Your task to perform on an android device: Search for the best-rated coffee table on Crate & Barrel Image 0: 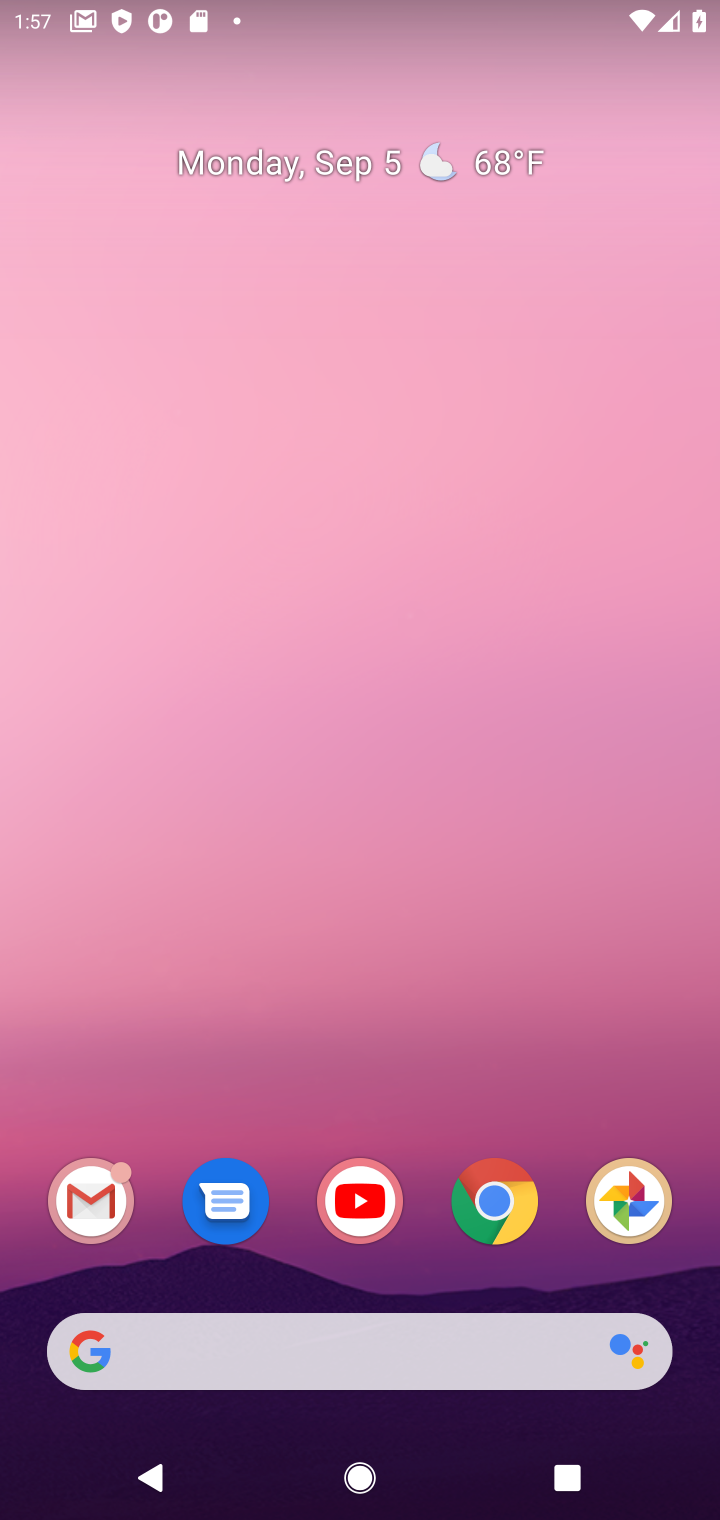
Step 0: press home button
Your task to perform on an android device: Search for the best-rated coffee table on Crate & Barrel Image 1: 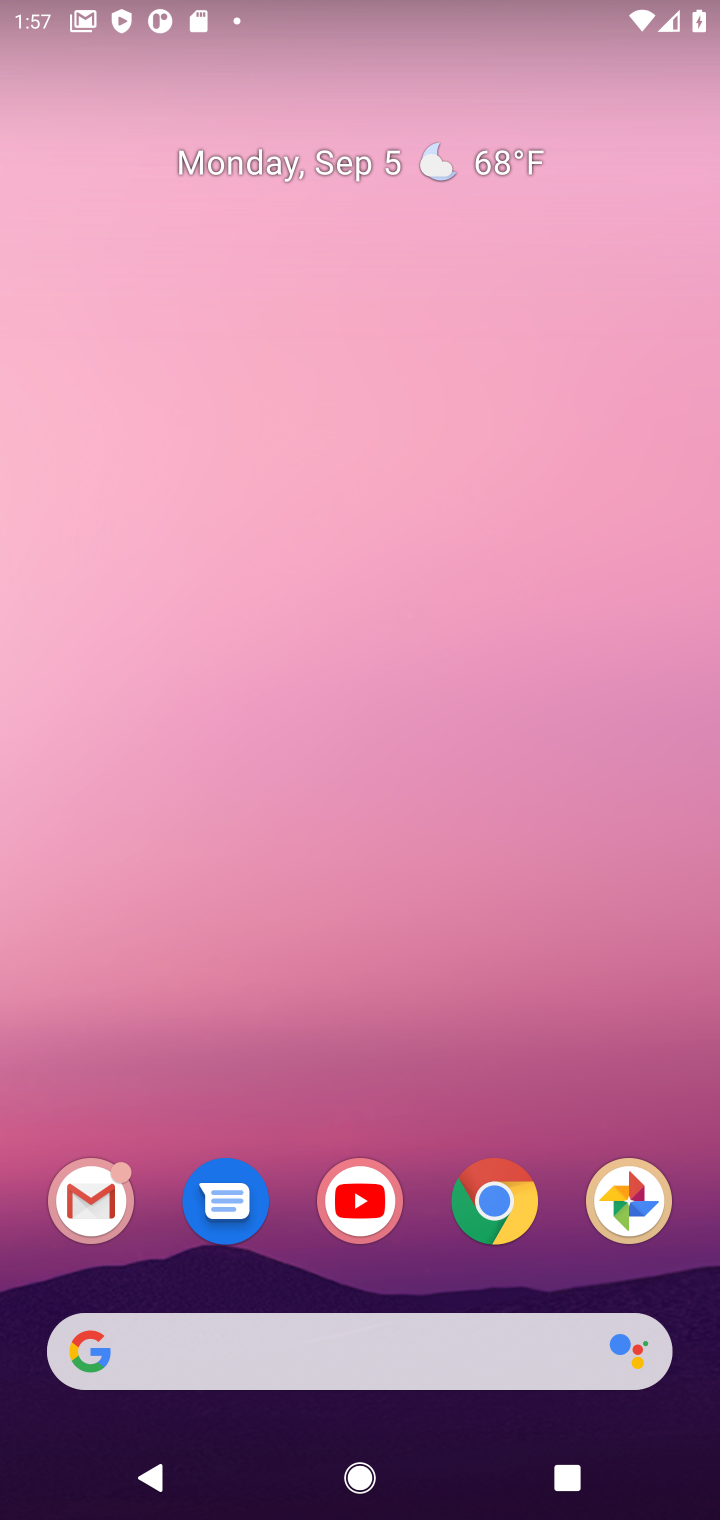
Step 1: click (493, 1211)
Your task to perform on an android device: Search for the best-rated coffee table on Crate & Barrel Image 2: 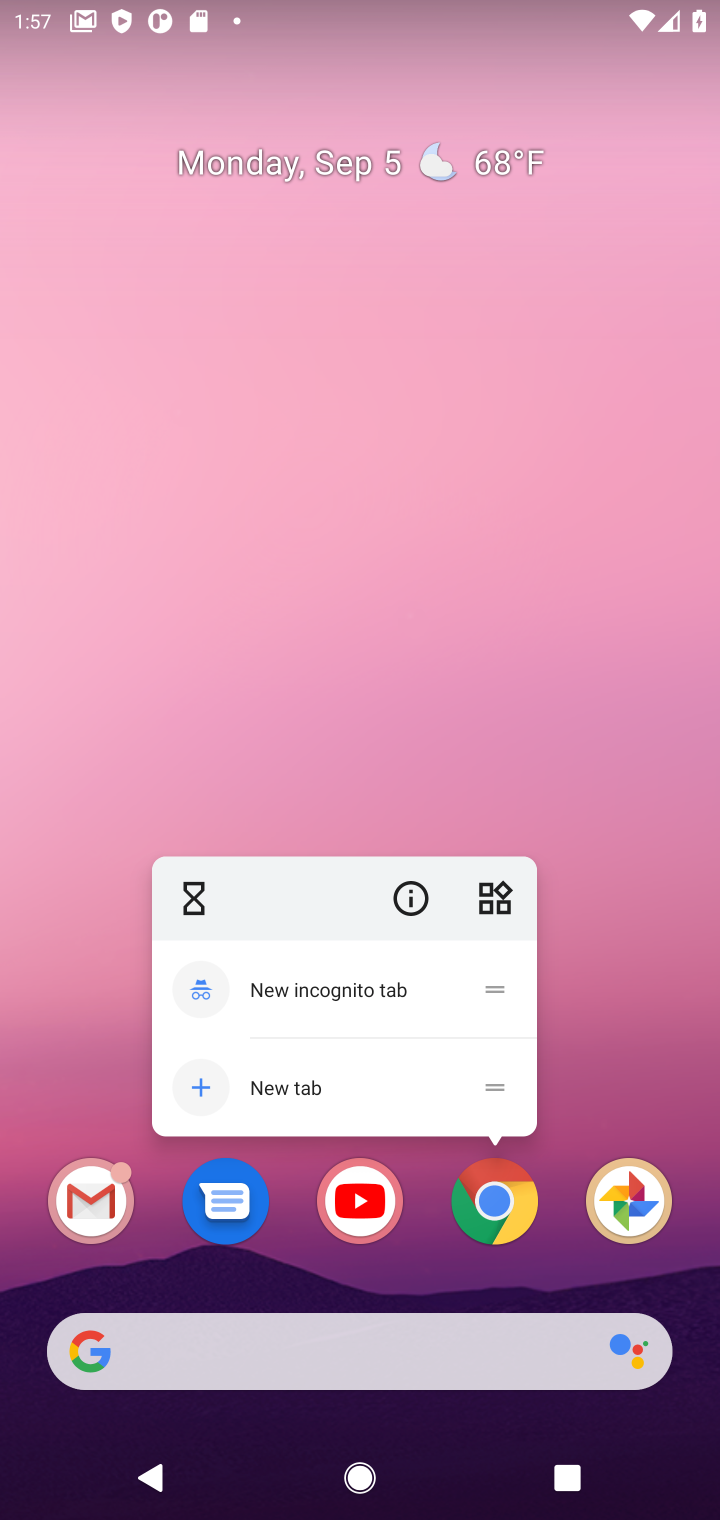
Step 2: click (493, 1211)
Your task to perform on an android device: Search for the best-rated coffee table on Crate & Barrel Image 3: 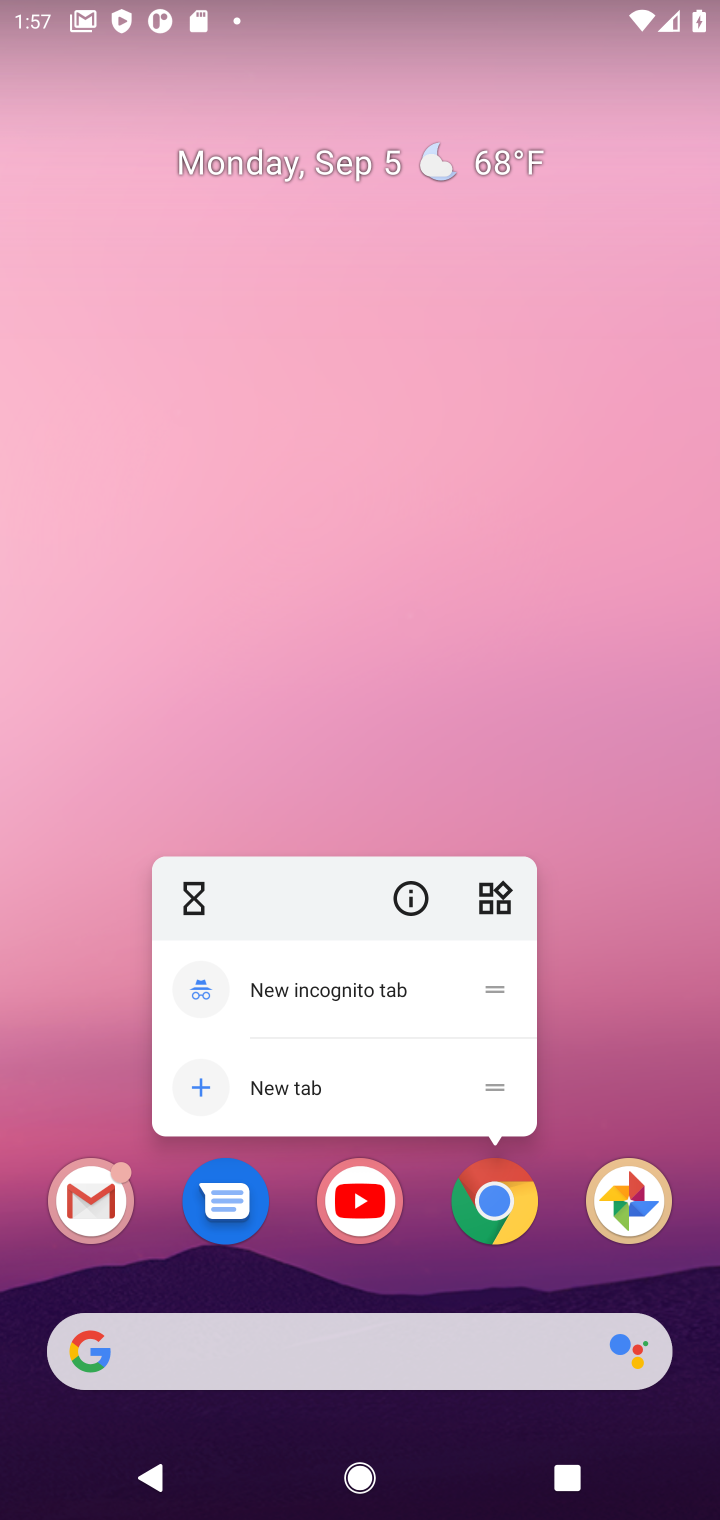
Step 3: click (493, 1212)
Your task to perform on an android device: Search for the best-rated coffee table on Crate & Barrel Image 4: 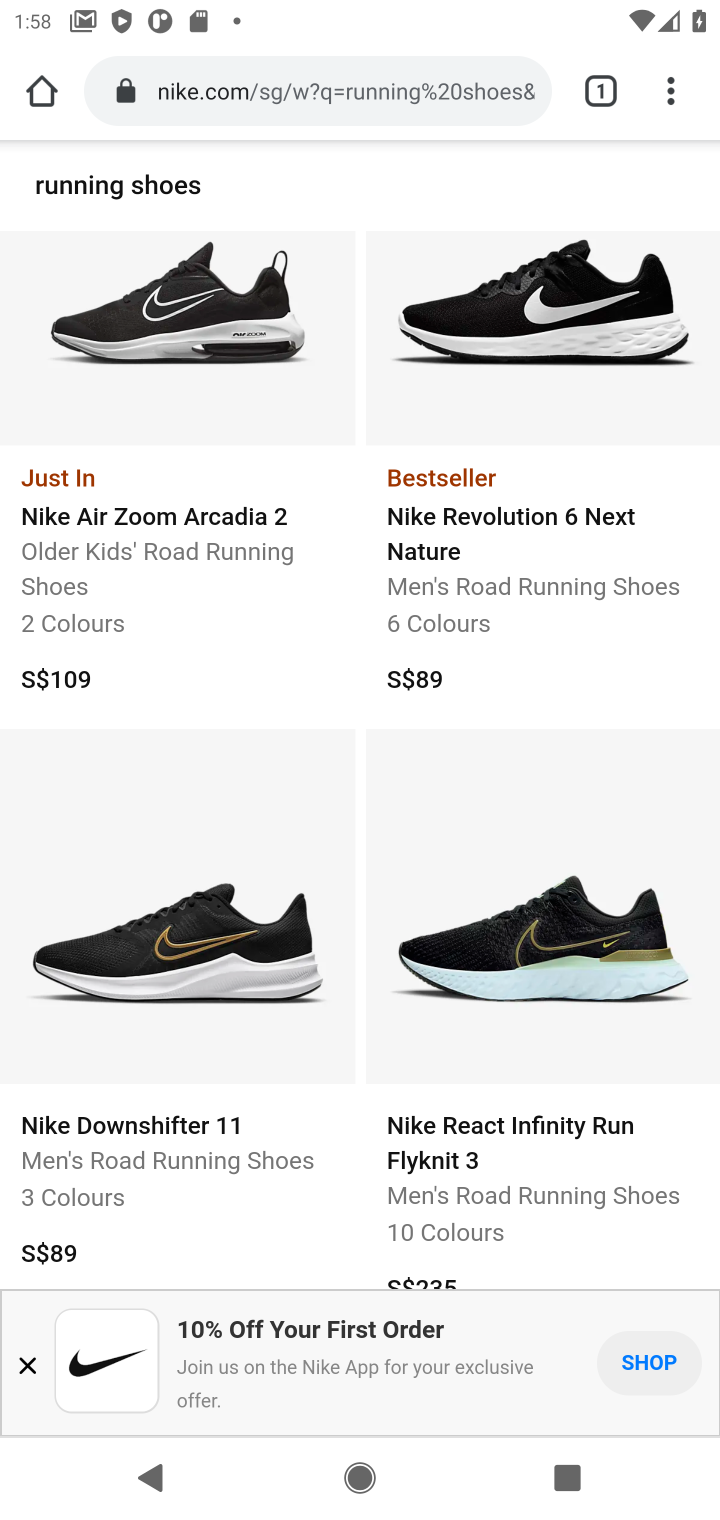
Step 4: click (358, 84)
Your task to perform on an android device: Search for the best-rated coffee table on Crate & Barrel Image 5: 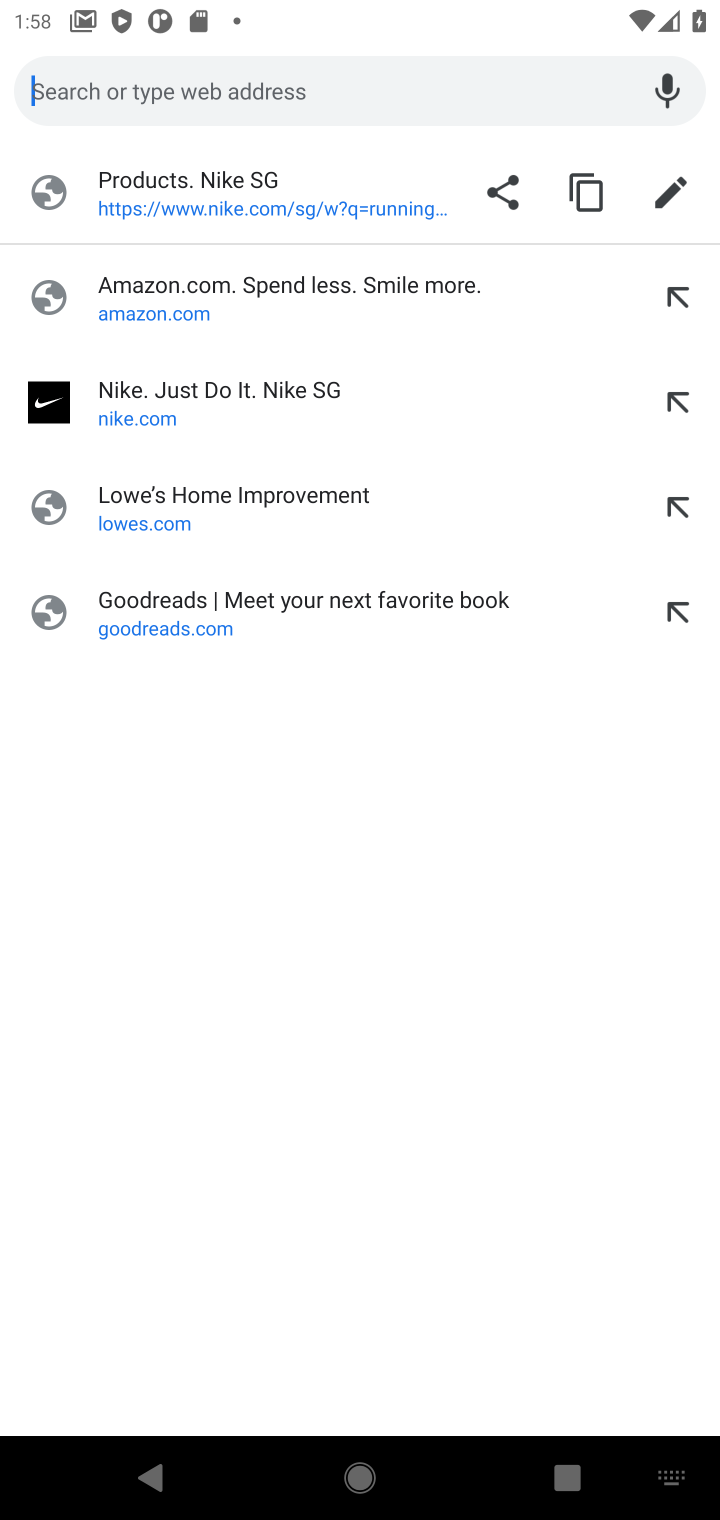
Step 5: press enter
Your task to perform on an android device: Search for the best-rated coffee table on Crate & Barrel Image 6: 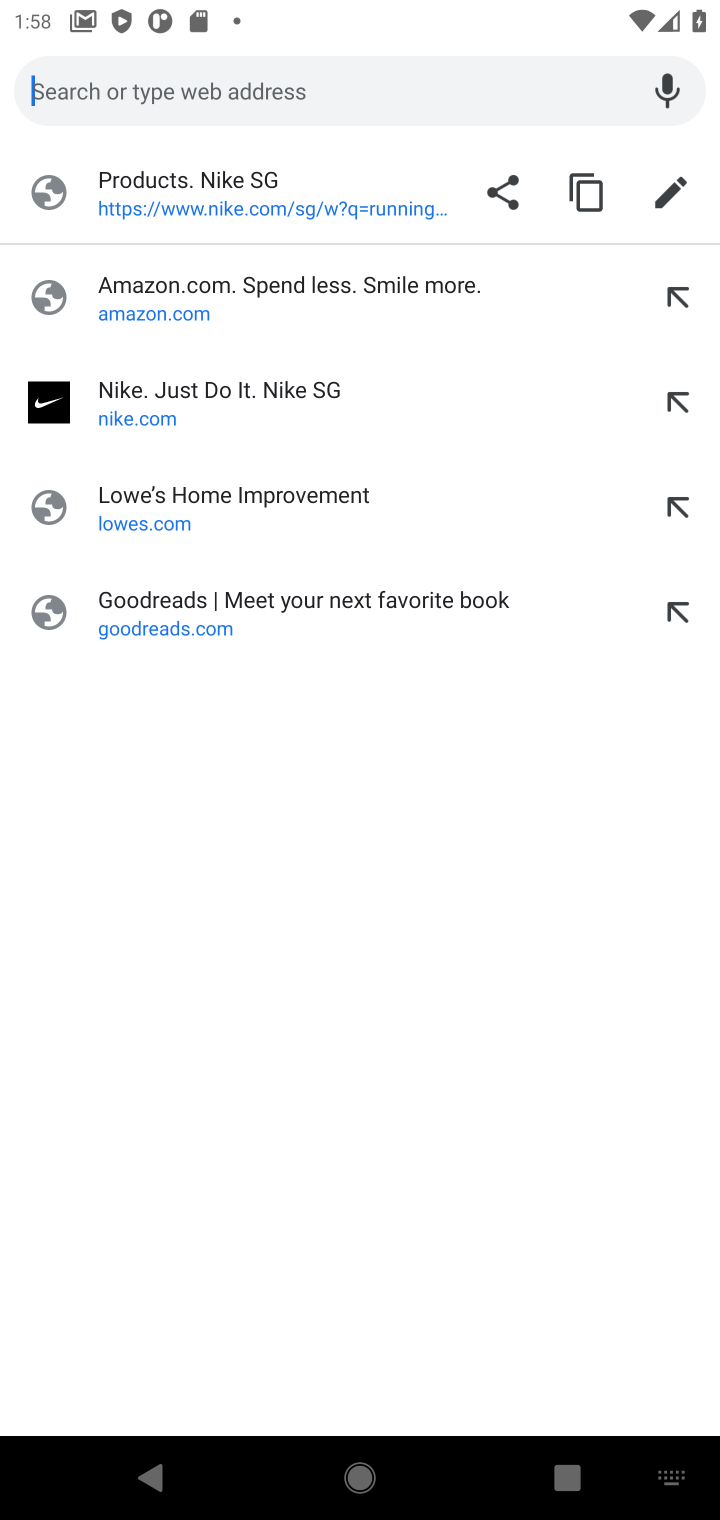
Step 6: type "Crate & Barrel"
Your task to perform on an android device: Search for the best-rated coffee table on Crate & Barrel Image 7: 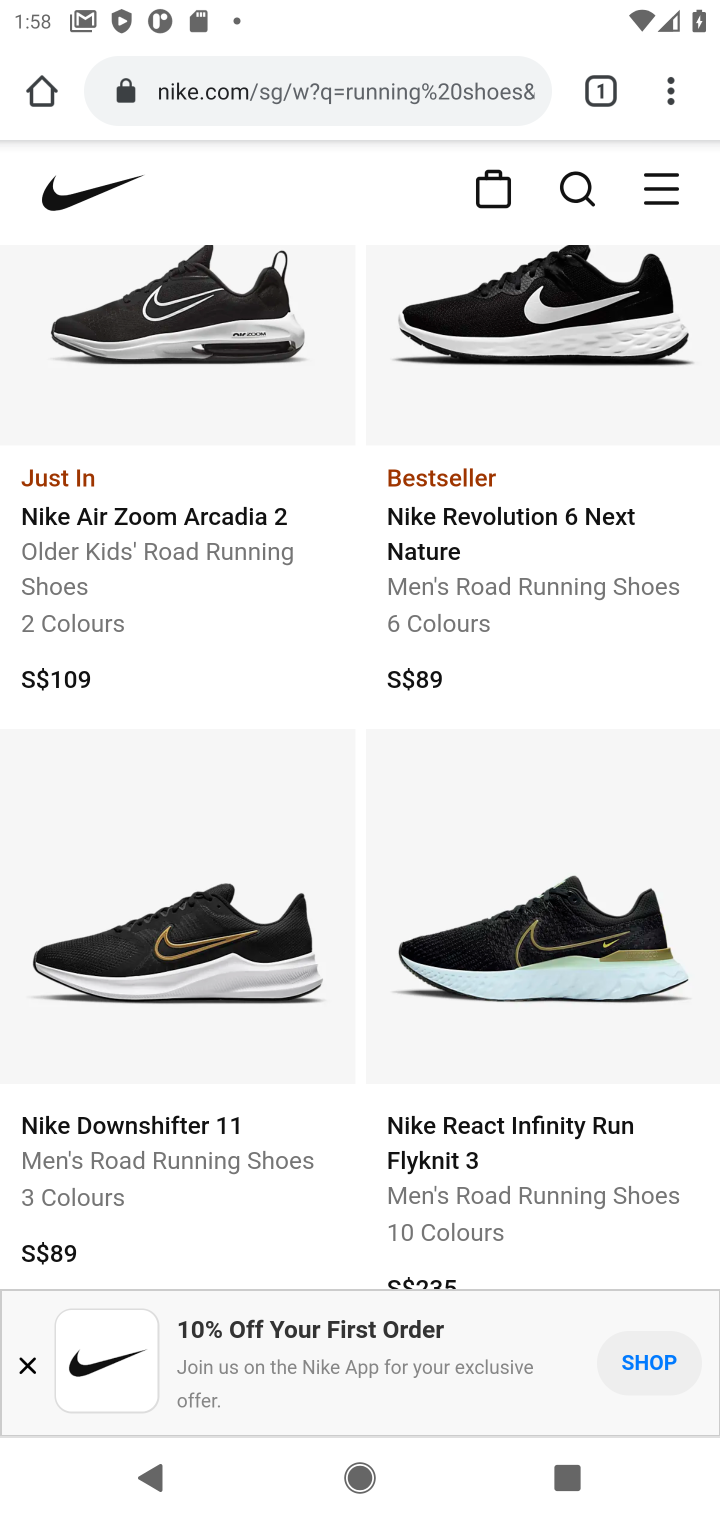
Step 7: click (375, 73)
Your task to perform on an android device: Search for the best-rated coffee table on Crate & Barrel Image 8: 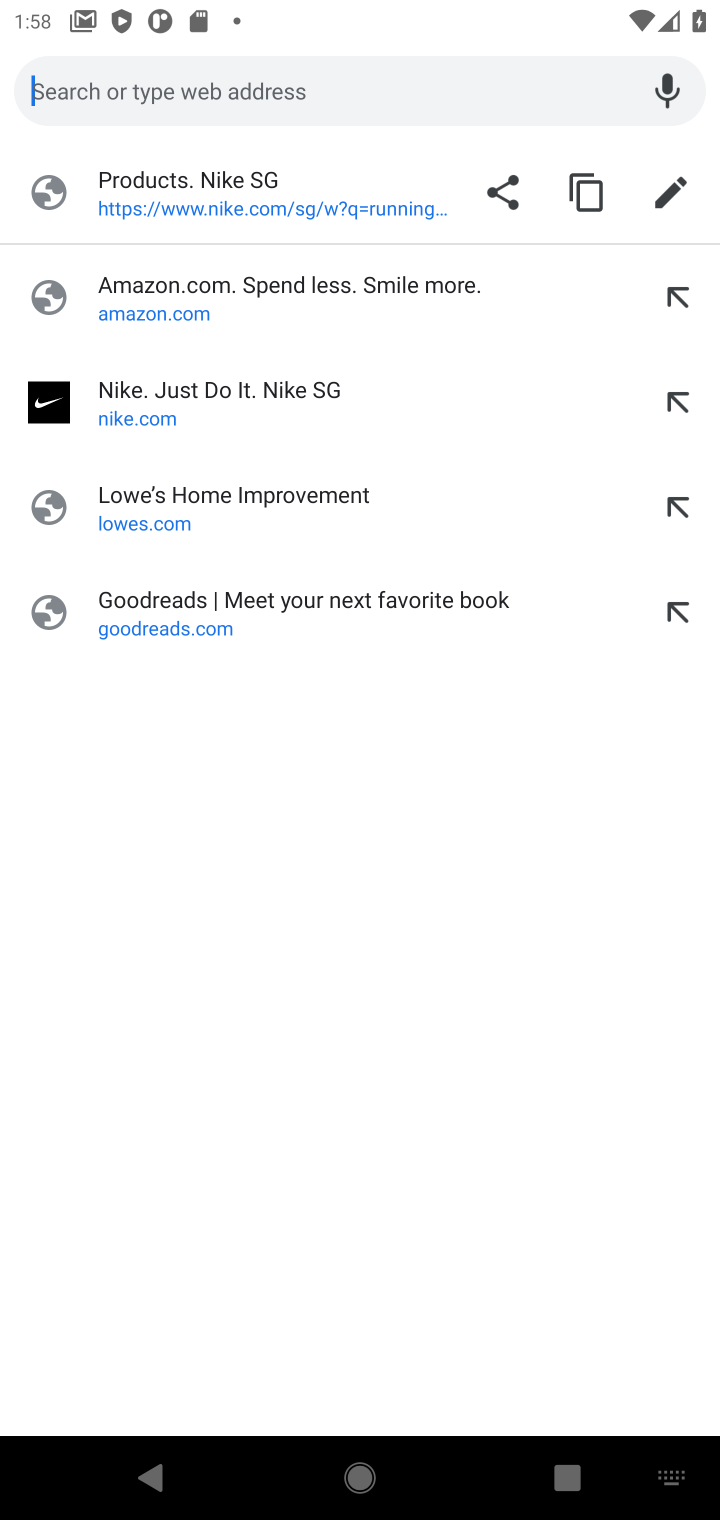
Step 8: type "Crate & Barrel"
Your task to perform on an android device: Search for the best-rated coffee table on Crate & Barrel Image 9: 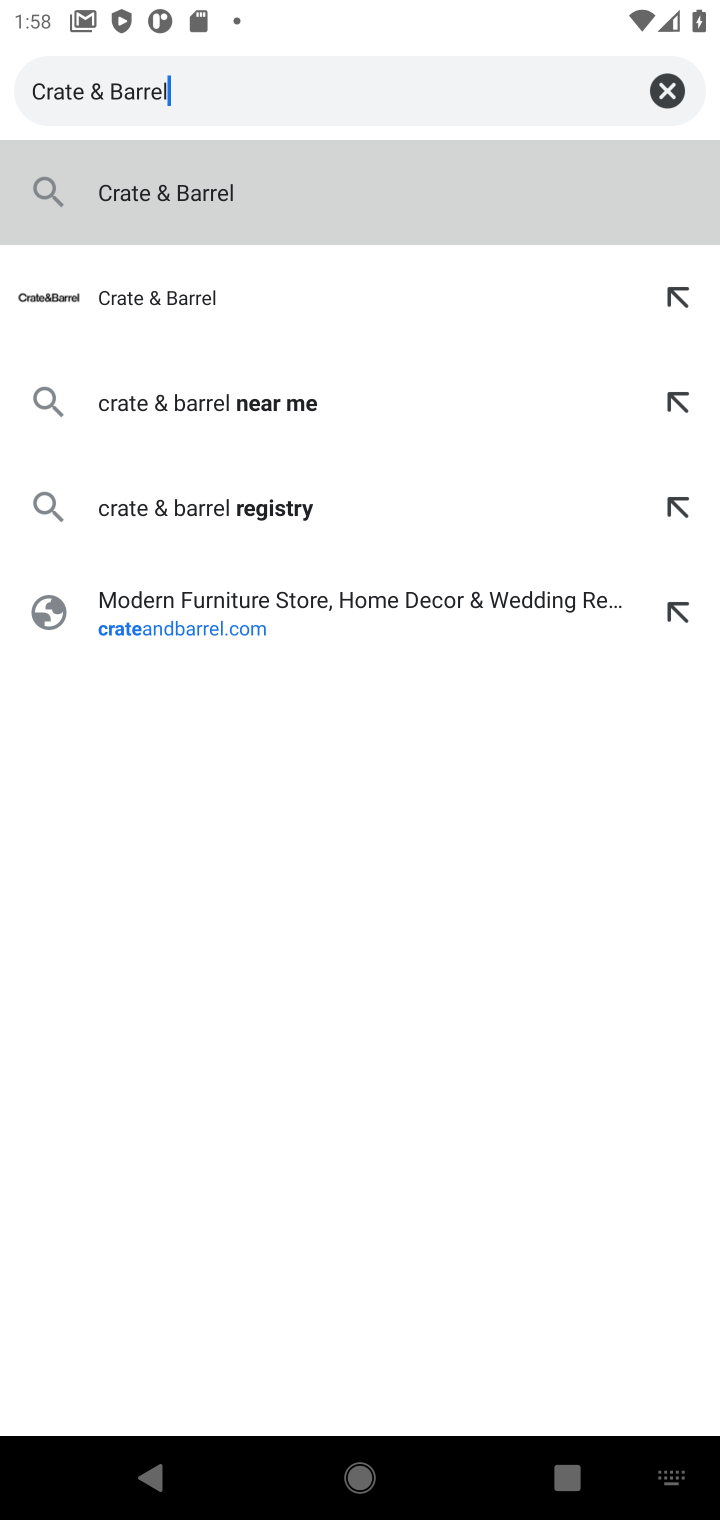
Step 9: press enter
Your task to perform on an android device: Search for the best-rated coffee table on Crate & Barrel Image 10: 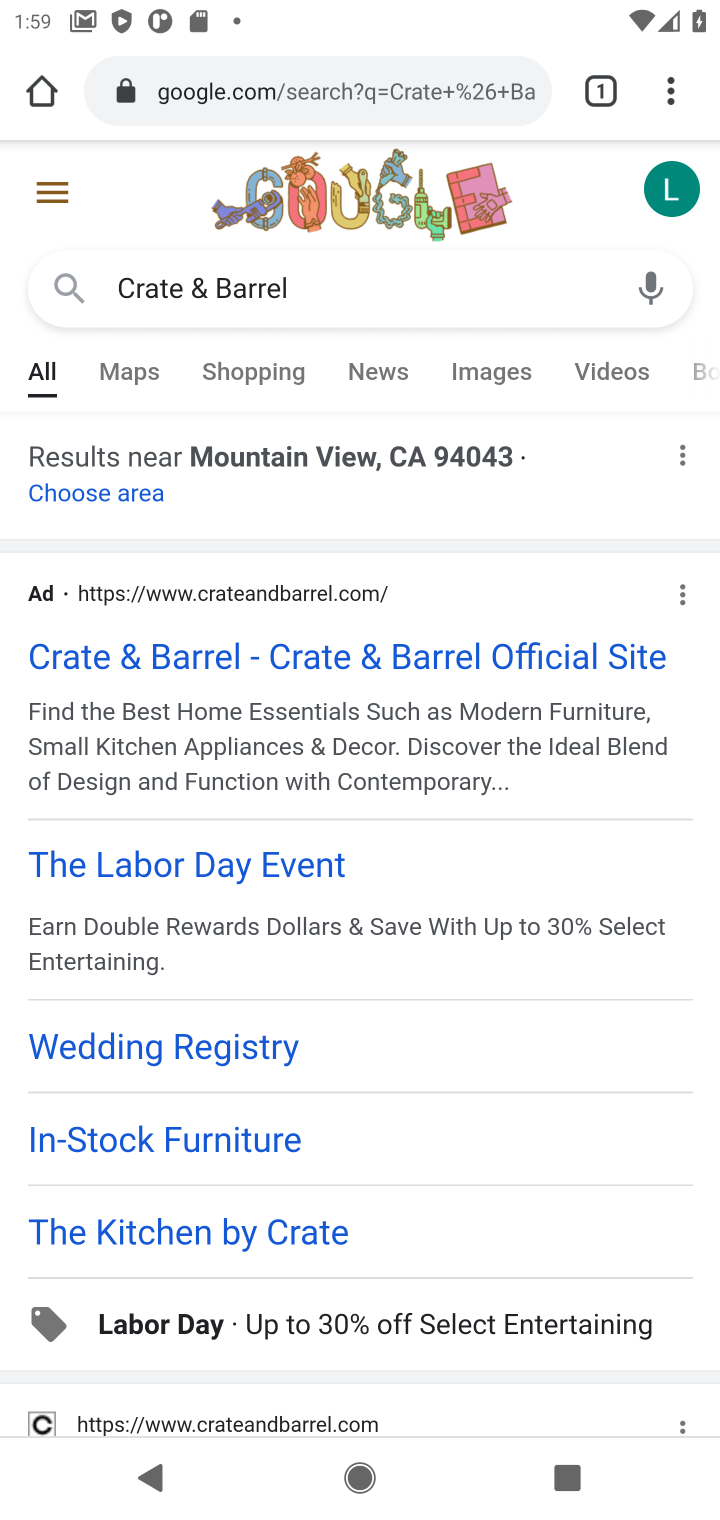
Step 10: drag from (502, 853) to (640, 529)
Your task to perform on an android device: Search for the best-rated coffee table on Crate & Barrel Image 11: 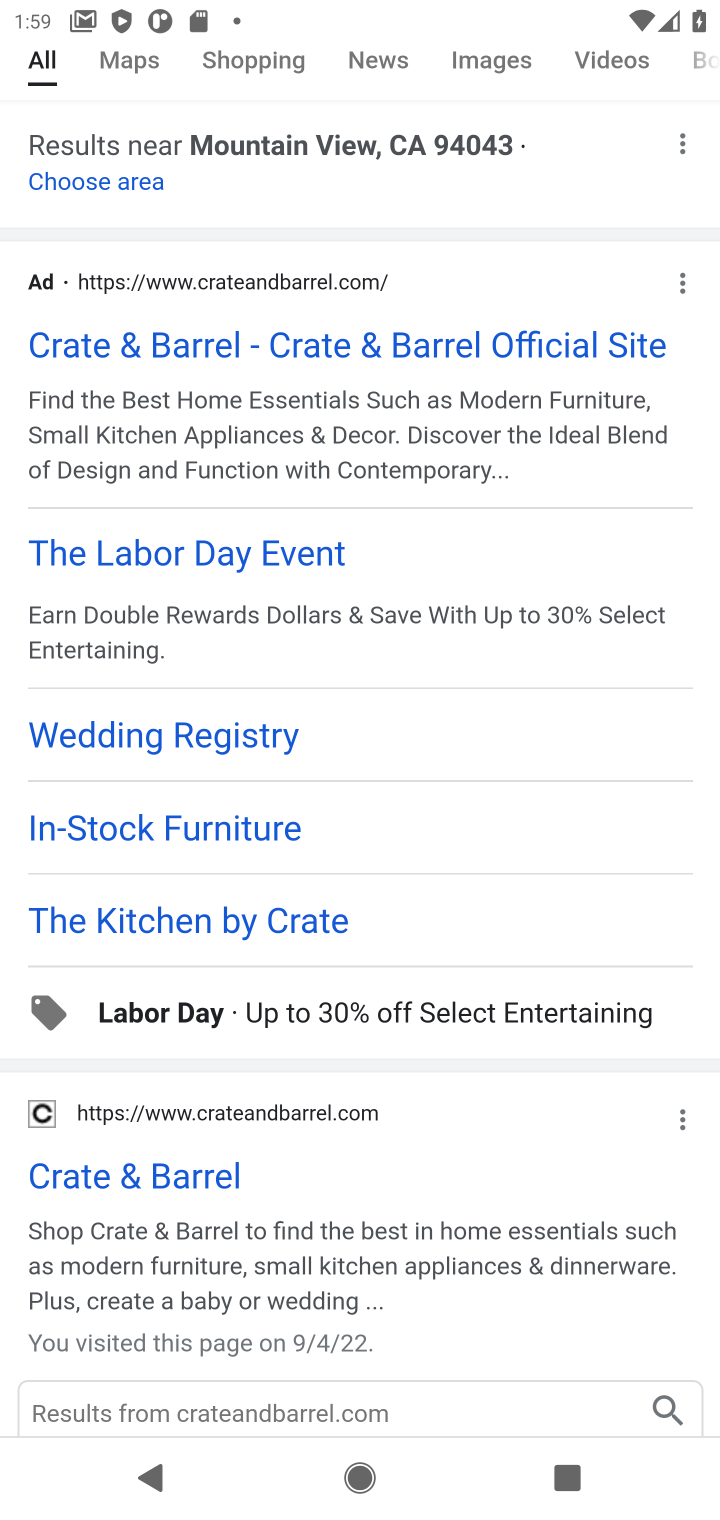
Step 11: click (191, 1166)
Your task to perform on an android device: Search for the best-rated coffee table on Crate & Barrel Image 12: 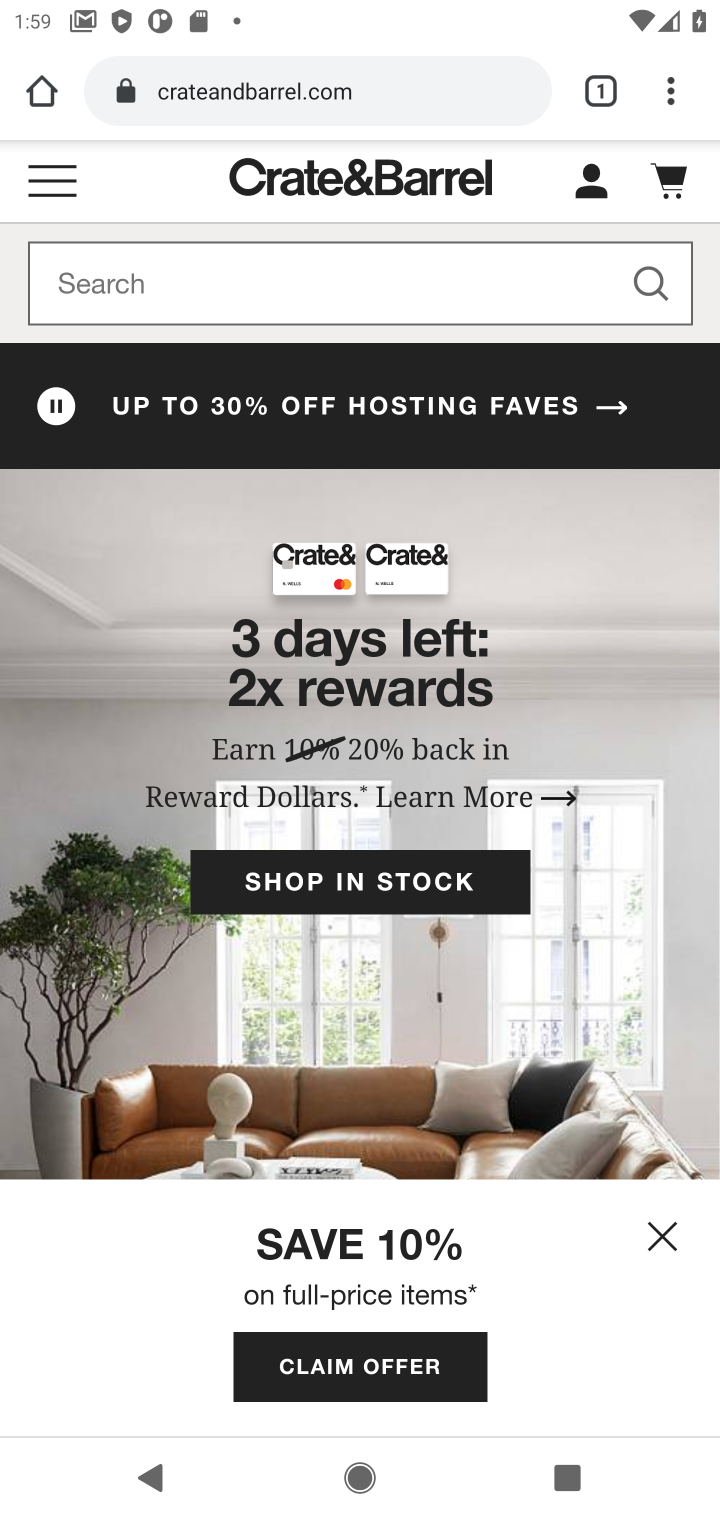
Step 12: click (411, 284)
Your task to perform on an android device: Search for the best-rated coffee table on Crate & Barrel Image 13: 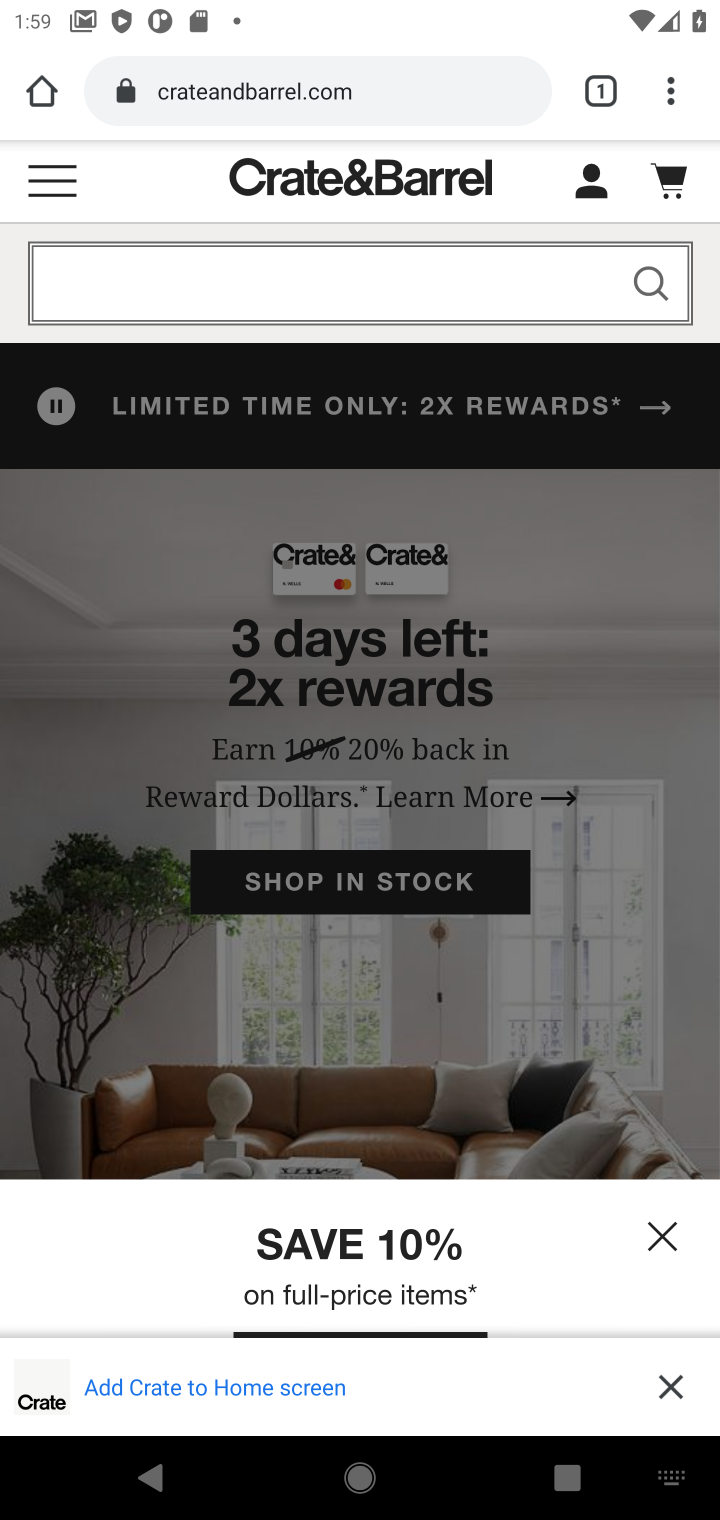
Step 13: type "rated coffee table"
Your task to perform on an android device: Search for the best-rated coffee table on Crate & Barrel Image 14: 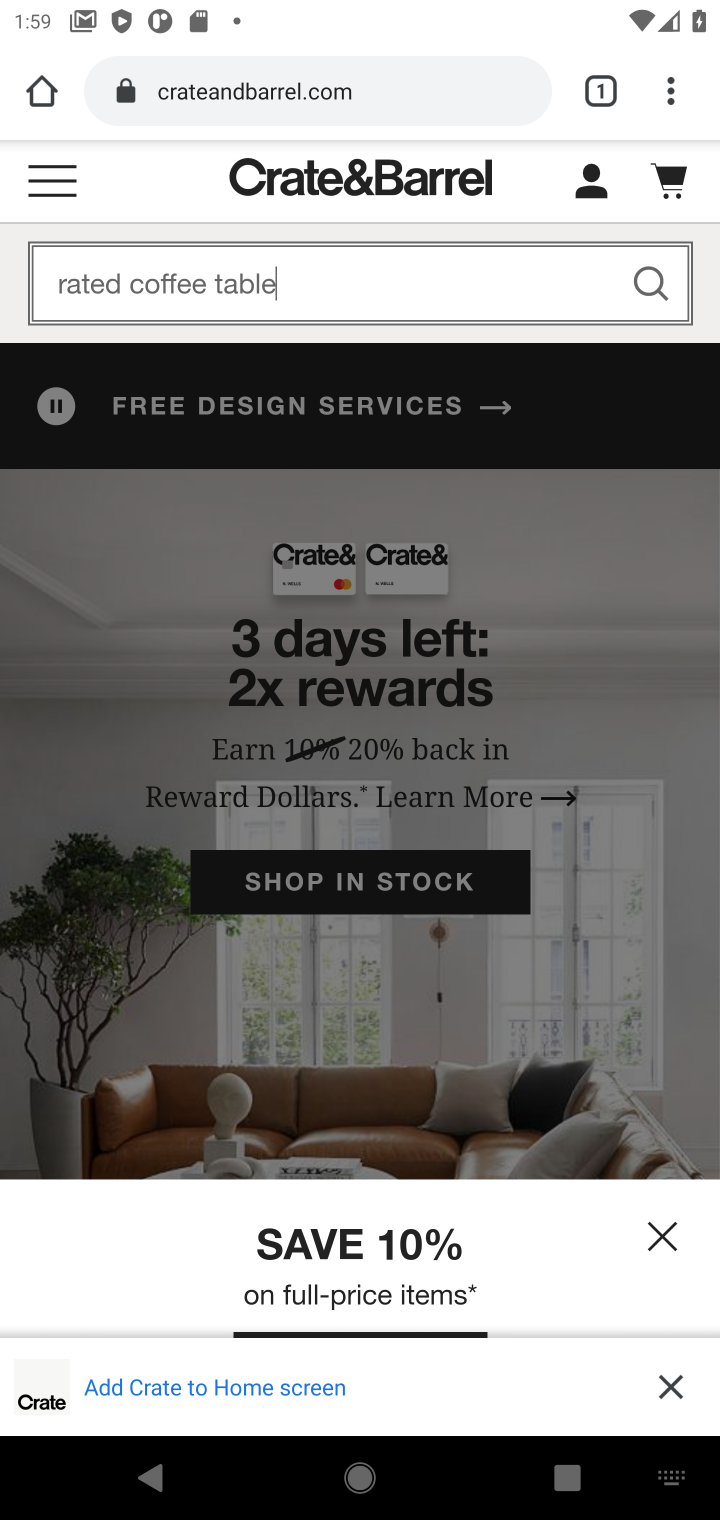
Step 14: press enter
Your task to perform on an android device: Search for the best-rated coffee table on Crate & Barrel Image 15: 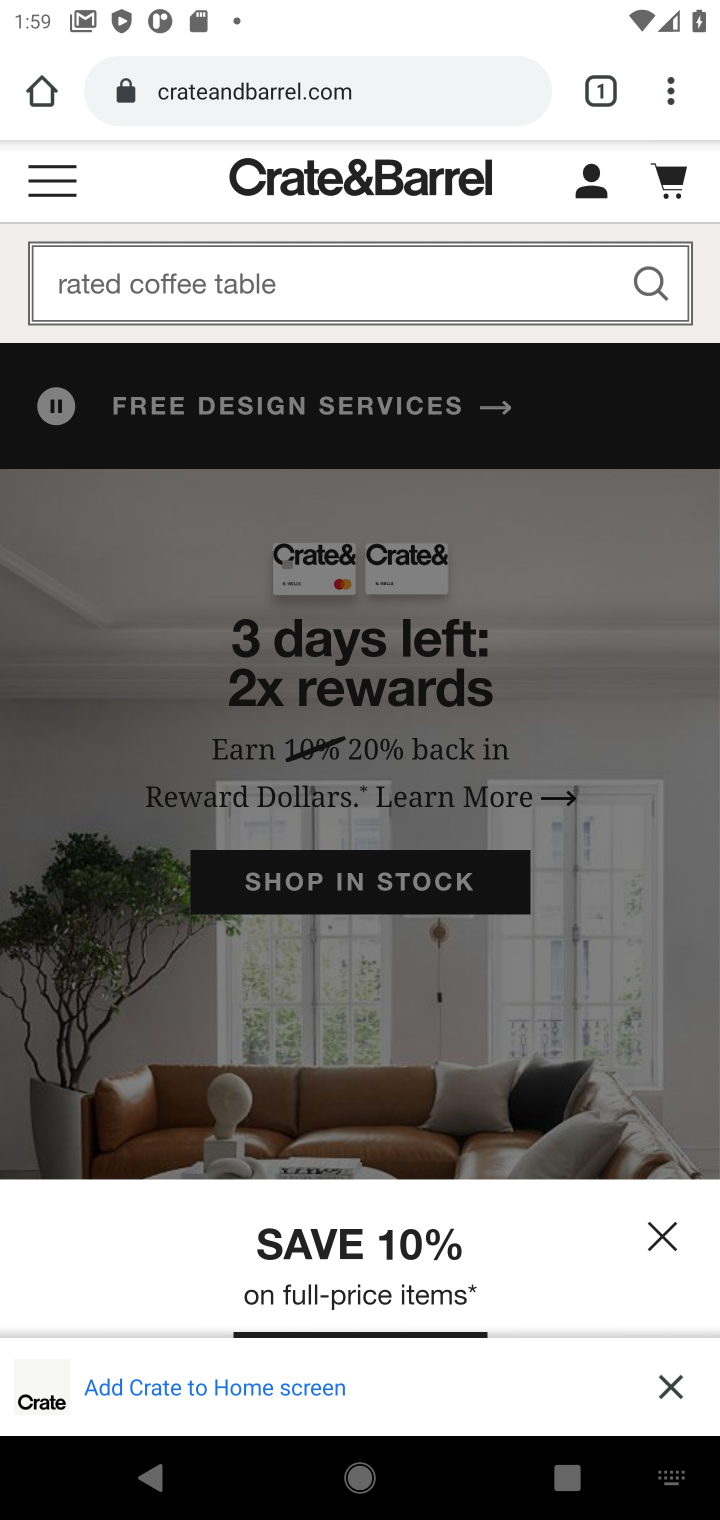
Step 15: click (645, 279)
Your task to perform on an android device: Search for the best-rated coffee table on Crate & Barrel Image 16: 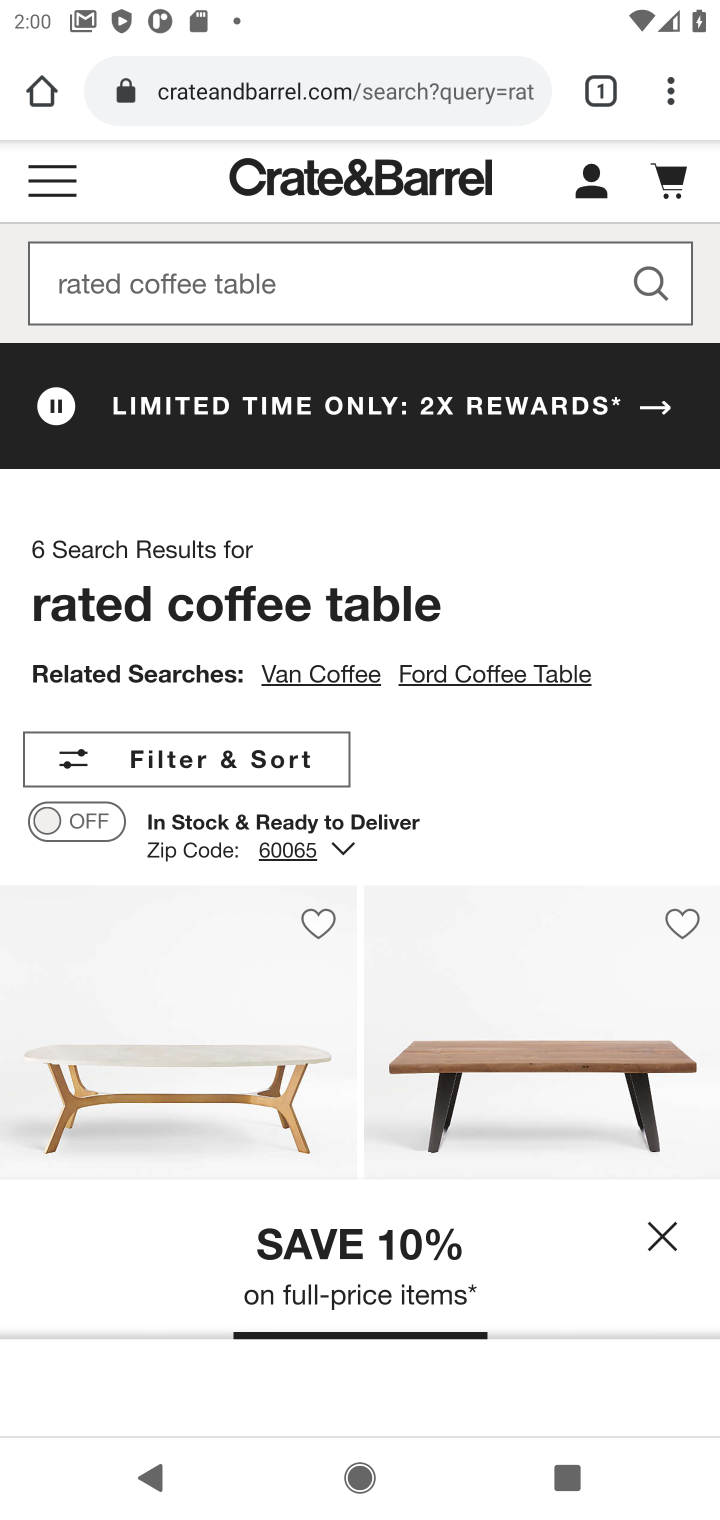
Step 16: drag from (380, 953) to (599, 483)
Your task to perform on an android device: Search for the best-rated coffee table on Crate & Barrel Image 17: 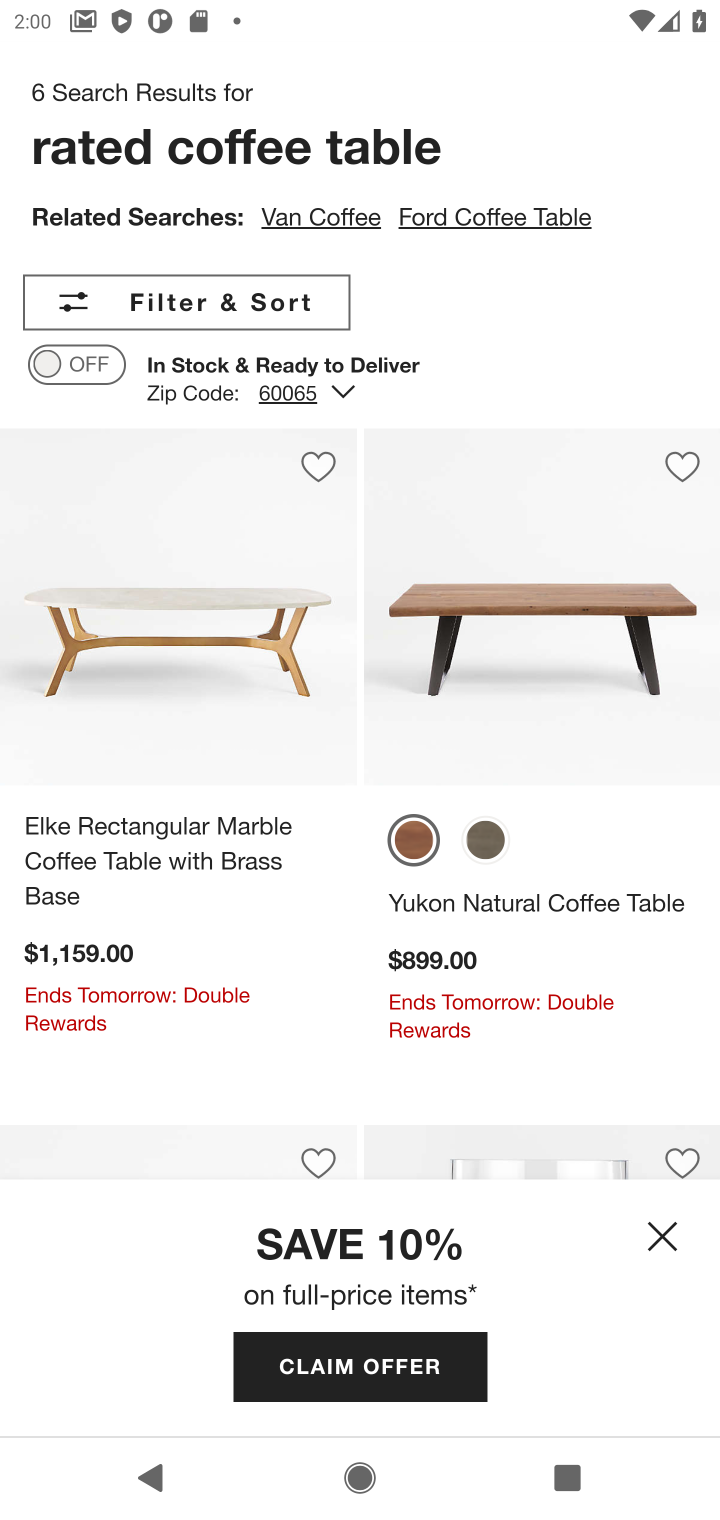
Step 17: drag from (174, 1096) to (685, 133)
Your task to perform on an android device: Search for the best-rated coffee table on Crate & Barrel Image 18: 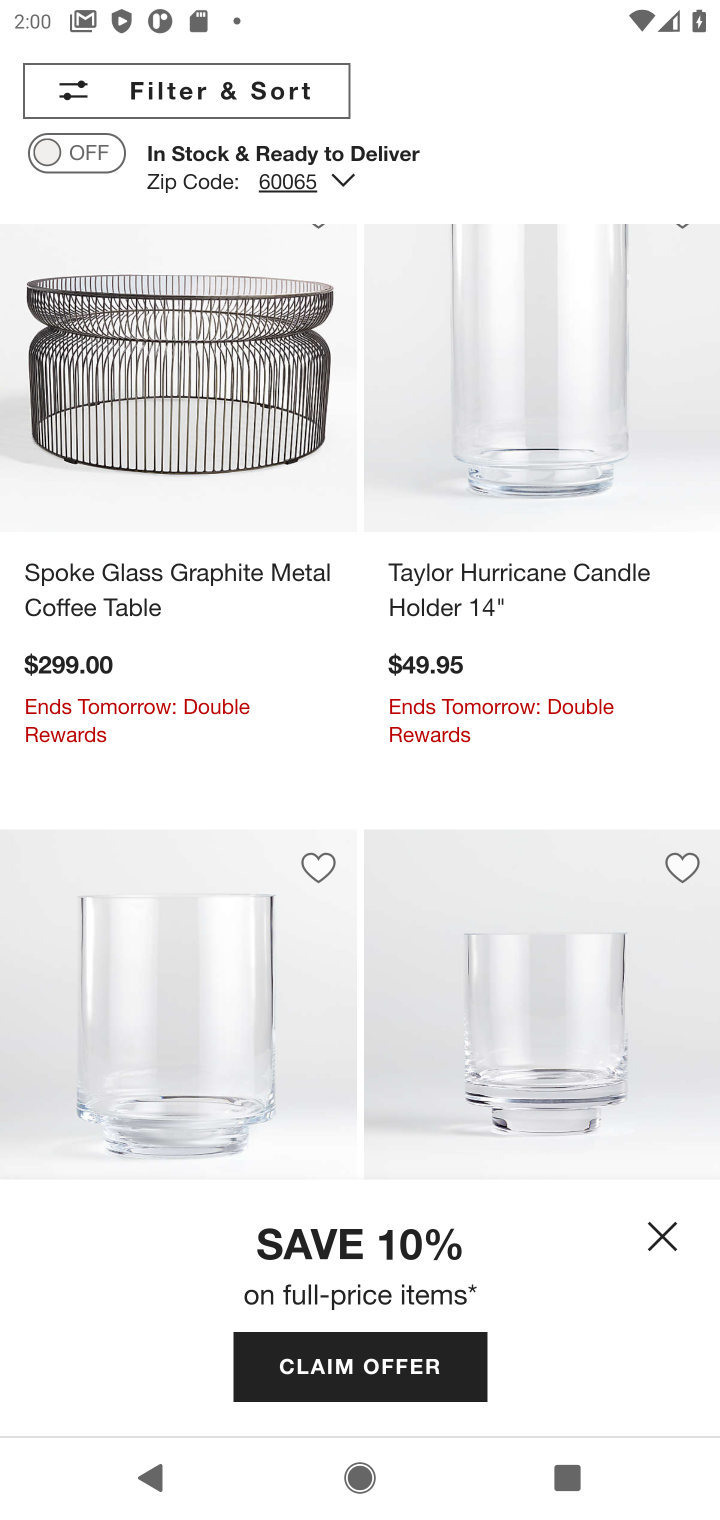
Step 18: click (683, 1240)
Your task to perform on an android device: Search for the best-rated coffee table on Crate & Barrel Image 19: 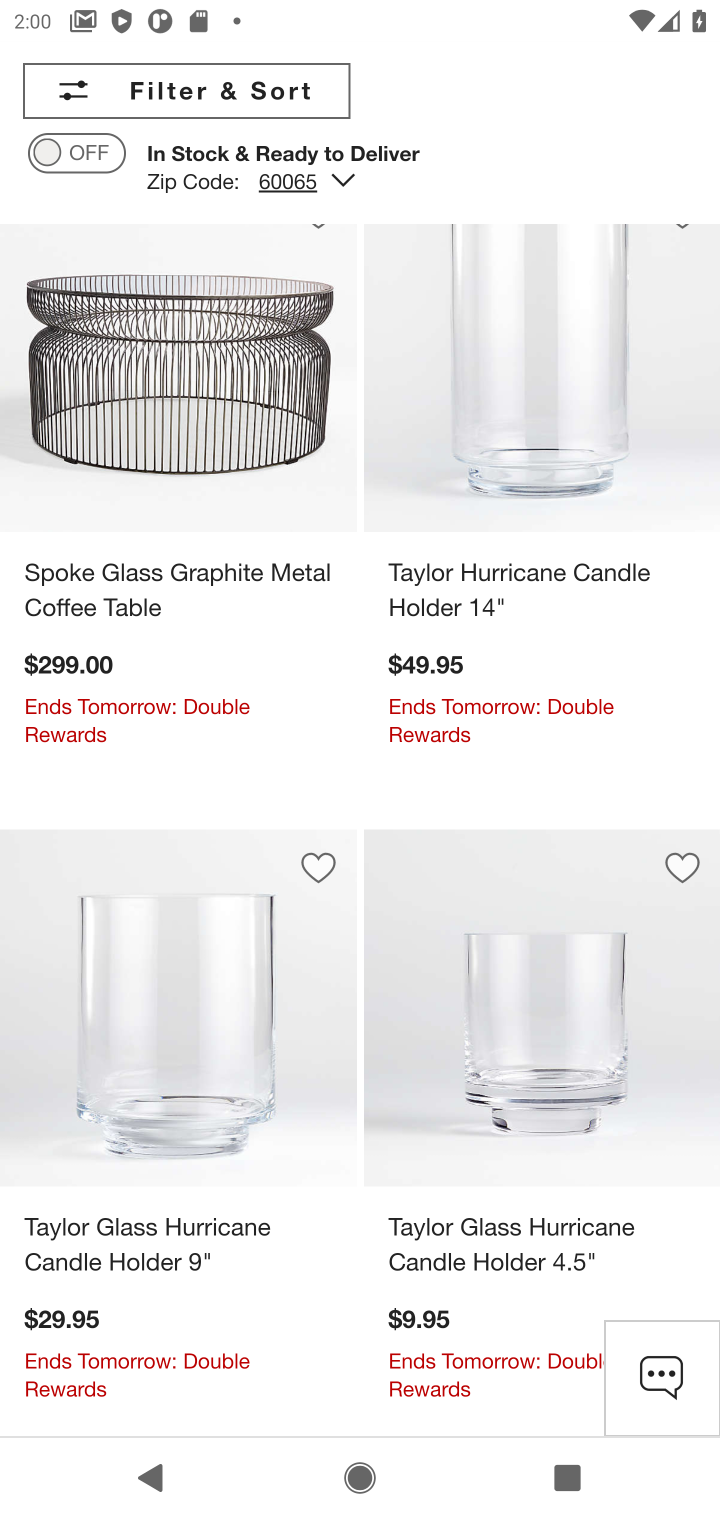
Step 19: drag from (441, 910) to (403, 1321)
Your task to perform on an android device: Search for the best-rated coffee table on Crate & Barrel Image 20: 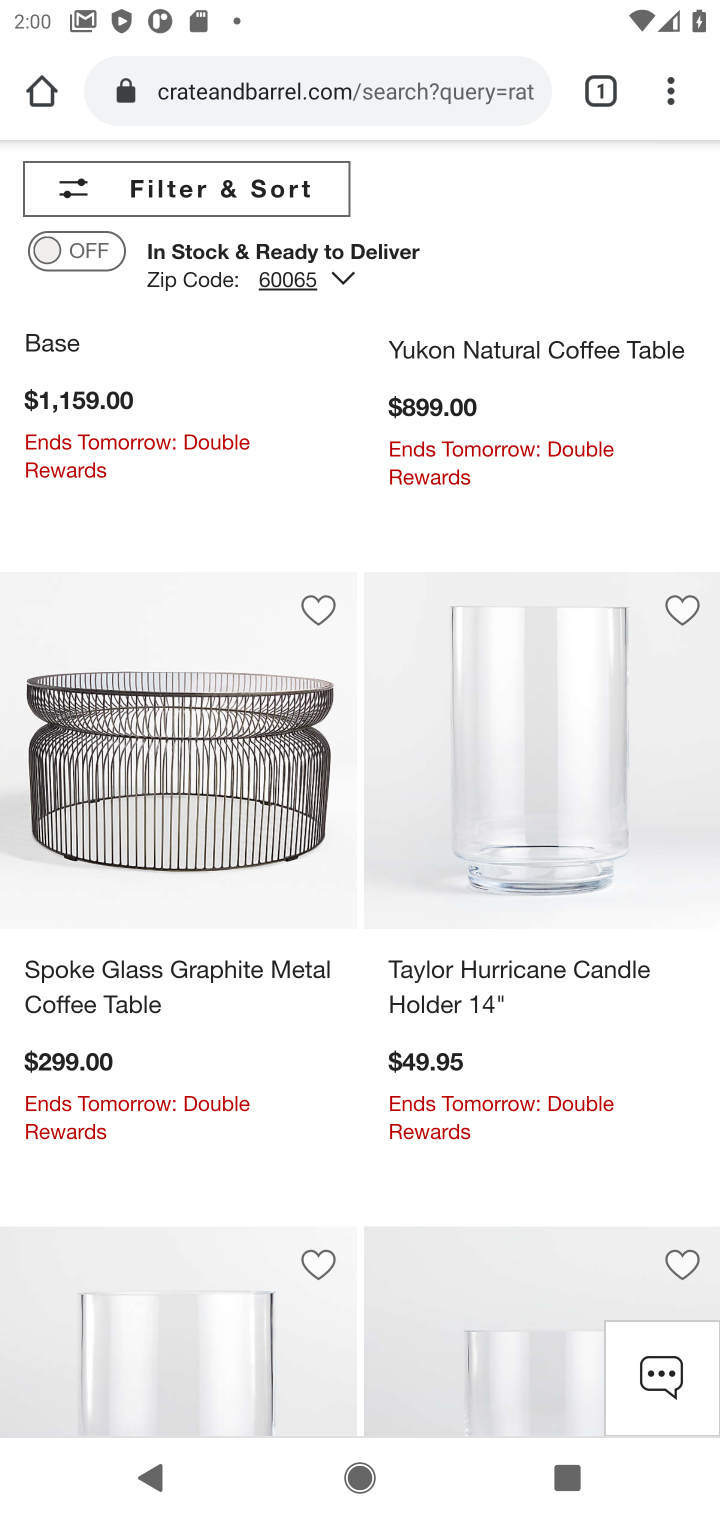
Step 20: drag from (390, 951) to (304, 1232)
Your task to perform on an android device: Search for the best-rated coffee table on Crate & Barrel Image 21: 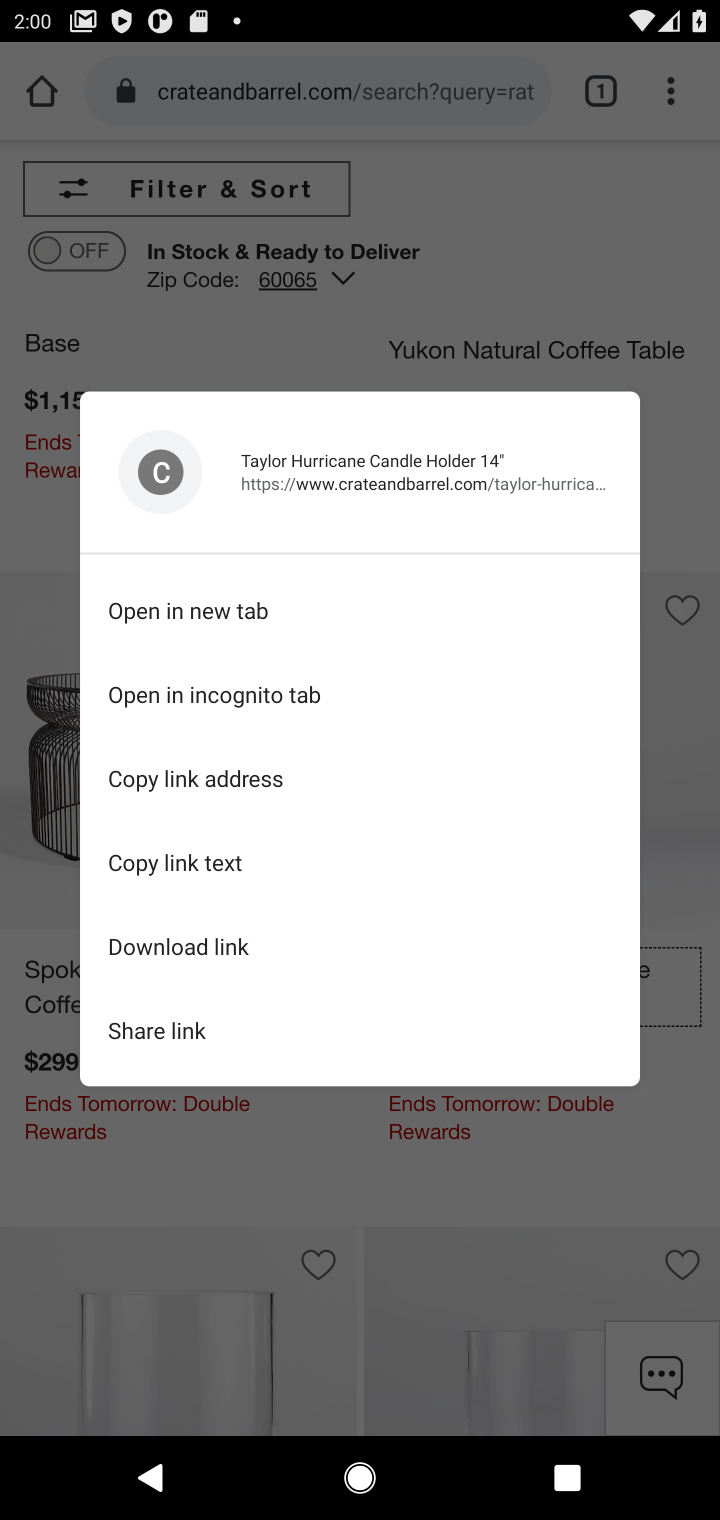
Step 21: drag from (335, 1045) to (293, 1144)
Your task to perform on an android device: Search for the best-rated coffee table on Crate & Barrel Image 22: 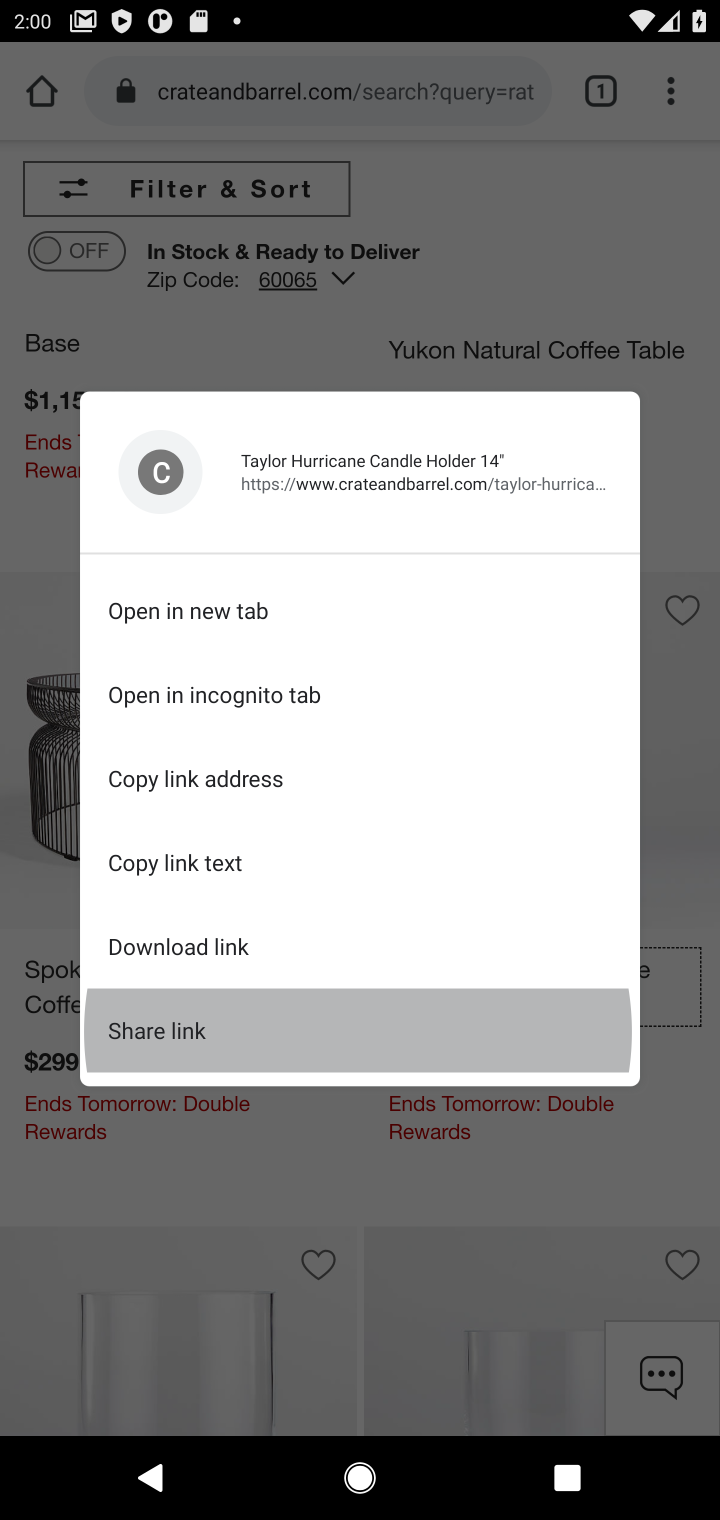
Step 22: click (578, 251)
Your task to perform on an android device: Search for the best-rated coffee table on Crate & Barrel Image 23: 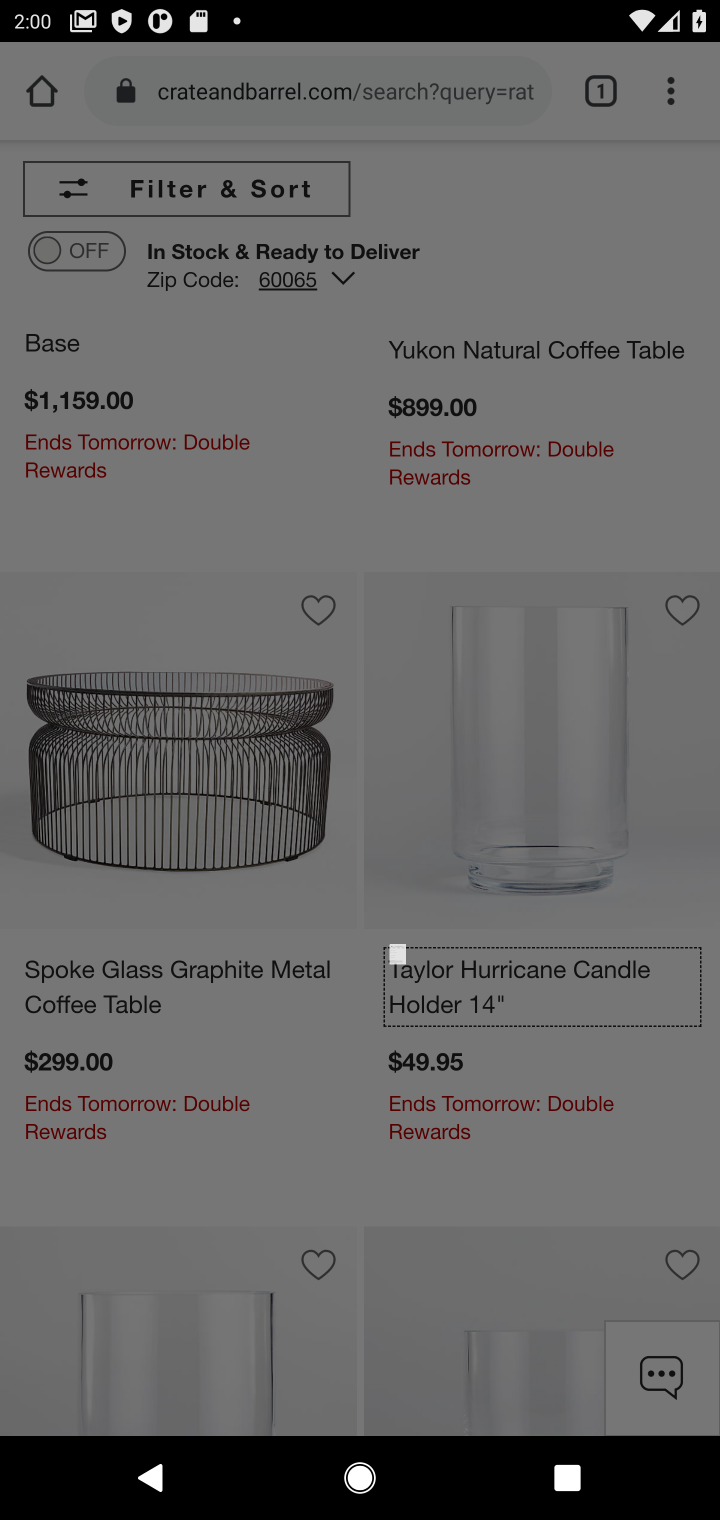
Step 23: task complete